Your task to perform on an android device: Go to internet settings Image 0: 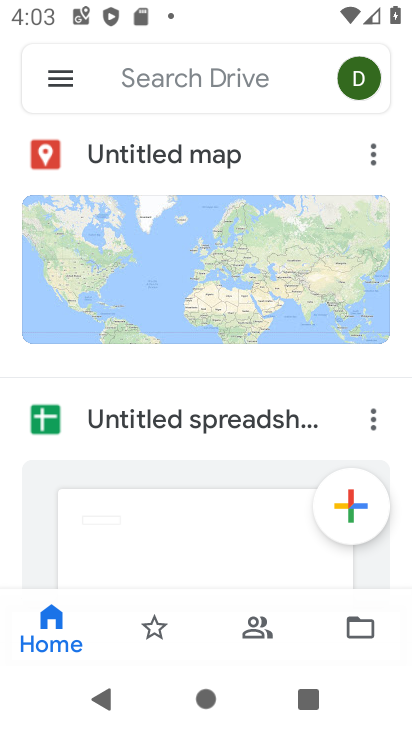
Step 0: press home button
Your task to perform on an android device: Go to internet settings Image 1: 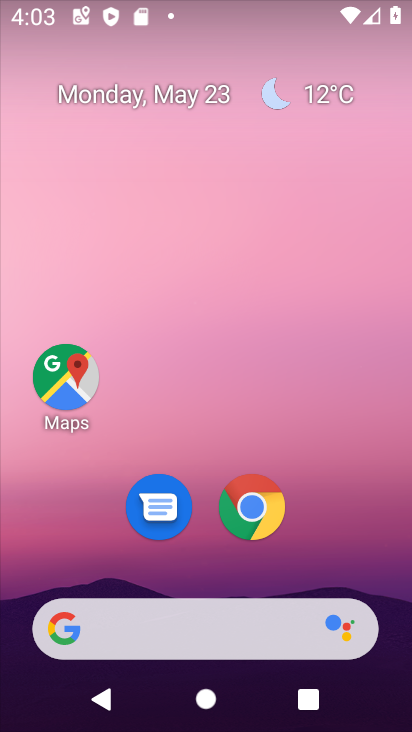
Step 1: drag from (279, 6) to (275, 436)
Your task to perform on an android device: Go to internet settings Image 2: 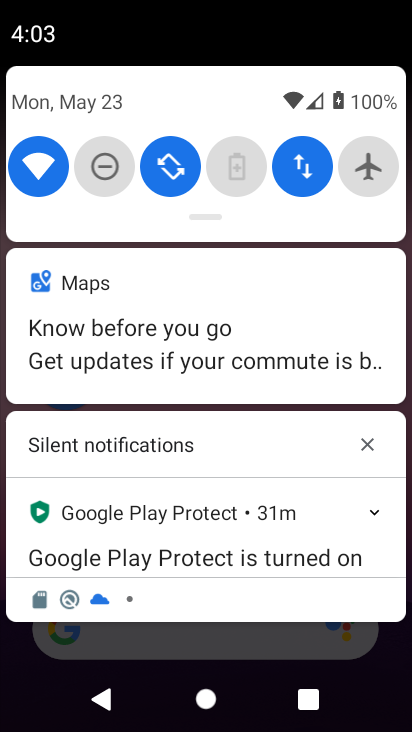
Step 2: click (307, 144)
Your task to perform on an android device: Go to internet settings Image 3: 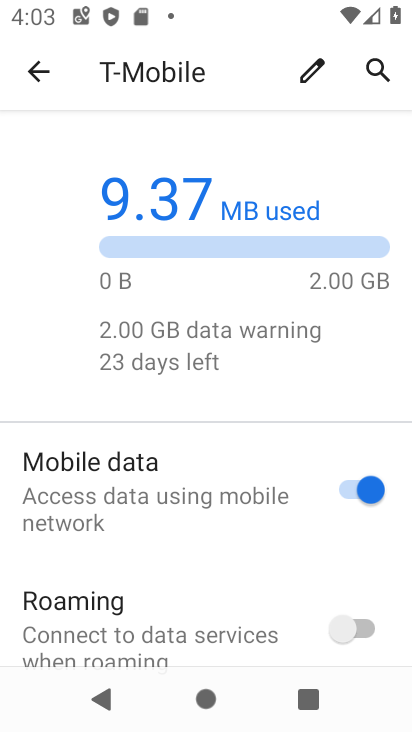
Step 3: click (307, 144)
Your task to perform on an android device: Go to internet settings Image 4: 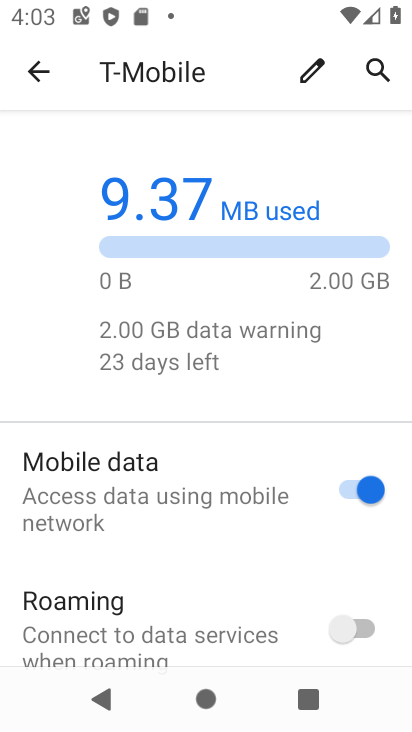
Step 4: task complete